Your task to perform on an android device: turn on the 12-hour format for clock Image 0: 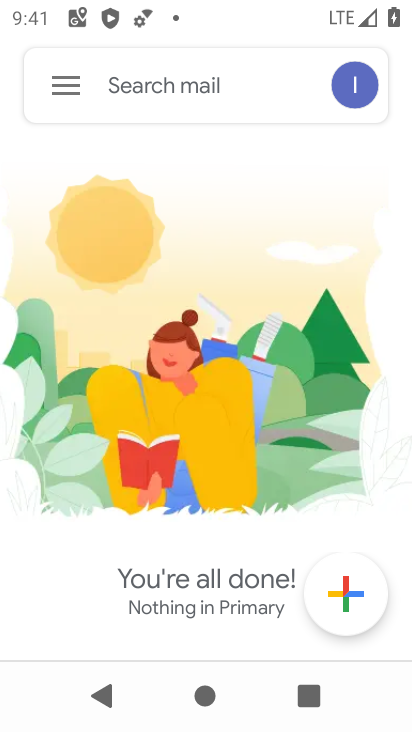
Step 0: press home button
Your task to perform on an android device: turn on the 12-hour format for clock Image 1: 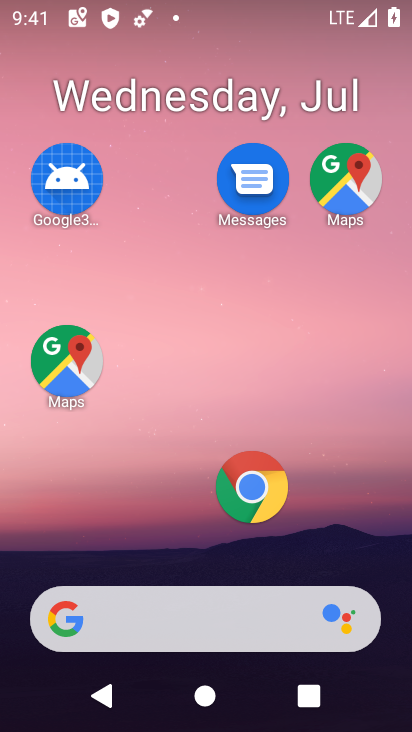
Step 1: drag from (232, 560) to (170, 2)
Your task to perform on an android device: turn on the 12-hour format for clock Image 2: 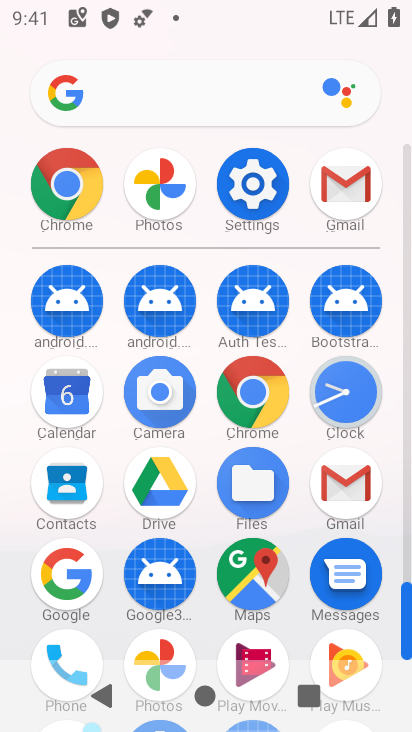
Step 2: click (345, 409)
Your task to perform on an android device: turn on the 12-hour format for clock Image 3: 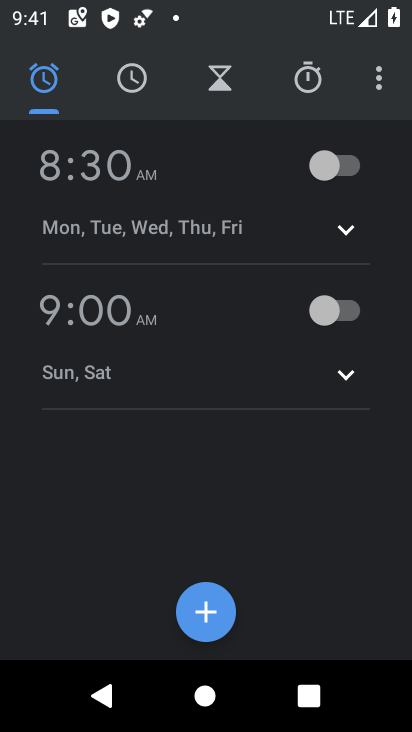
Step 3: click (380, 93)
Your task to perform on an android device: turn on the 12-hour format for clock Image 4: 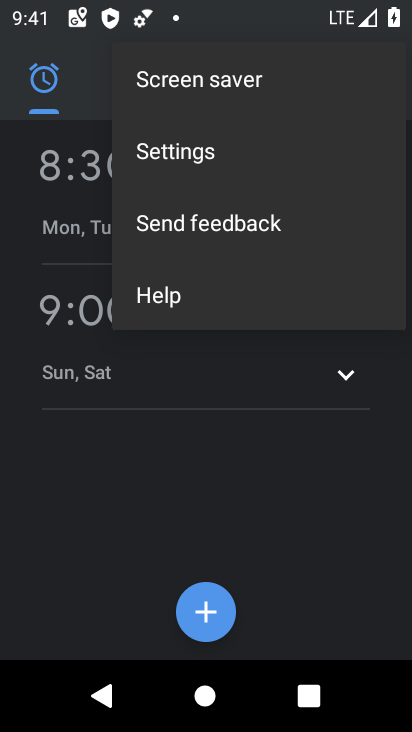
Step 4: click (220, 143)
Your task to perform on an android device: turn on the 12-hour format for clock Image 5: 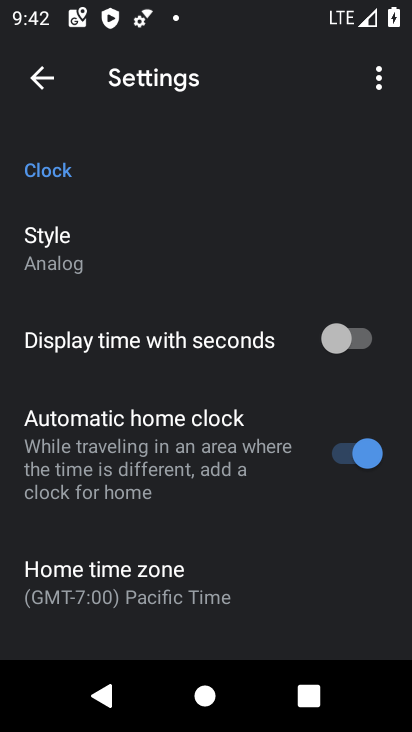
Step 5: drag from (129, 556) to (51, 177)
Your task to perform on an android device: turn on the 12-hour format for clock Image 6: 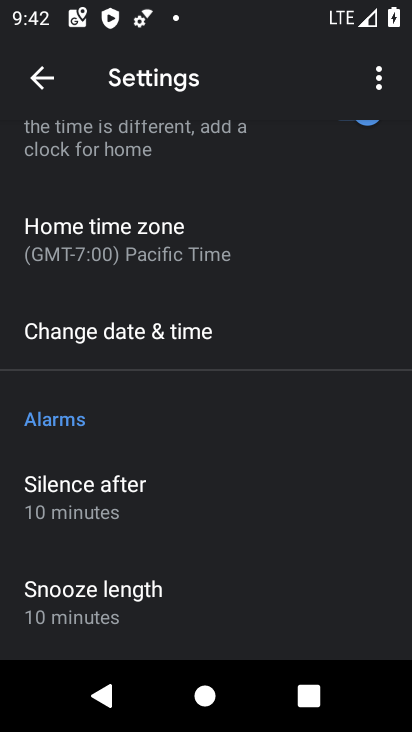
Step 6: click (91, 327)
Your task to perform on an android device: turn on the 12-hour format for clock Image 7: 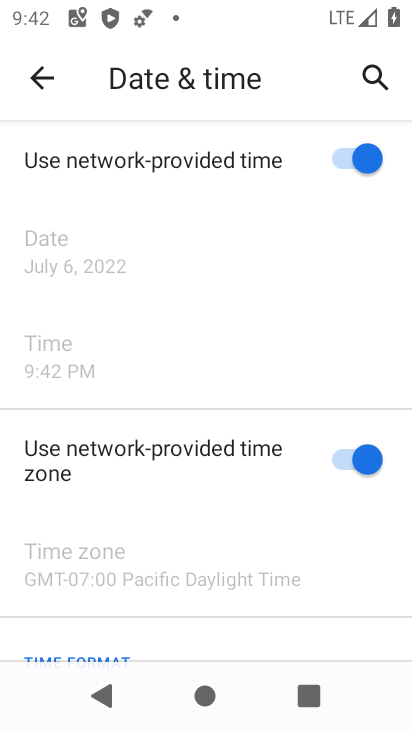
Step 7: task complete